Your task to perform on an android device: remove spam from my inbox in the gmail app Image 0: 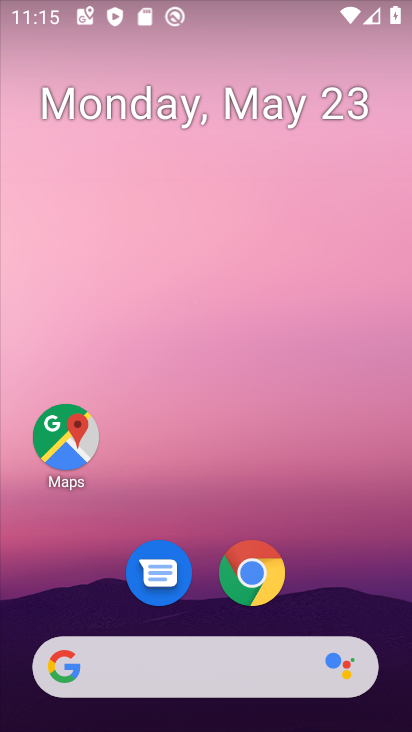
Step 0: drag from (377, 606) to (393, 218)
Your task to perform on an android device: remove spam from my inbox in the gmail app Image 1: 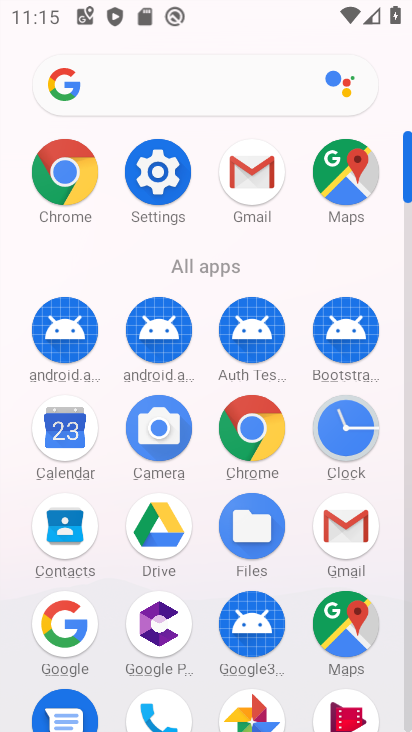
Step 1: click (359, 542)
Your task to perform on an android device: remove spam from my inbox in the gmail app Image 2: 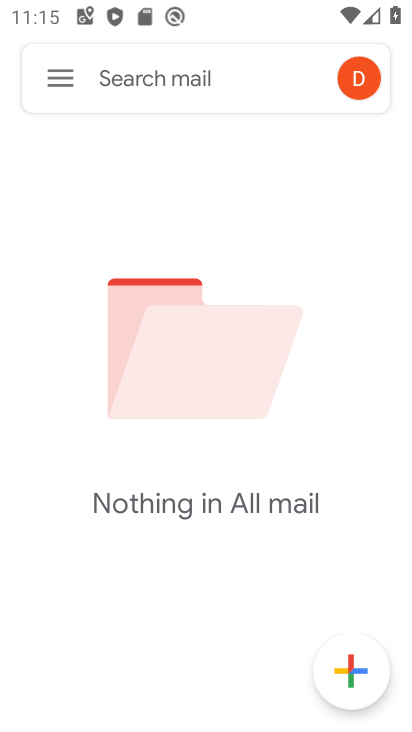
Step 2: click (60, 77)
Your task to perform on an android device: remove spam from my inbox in the gmail app Image 3: 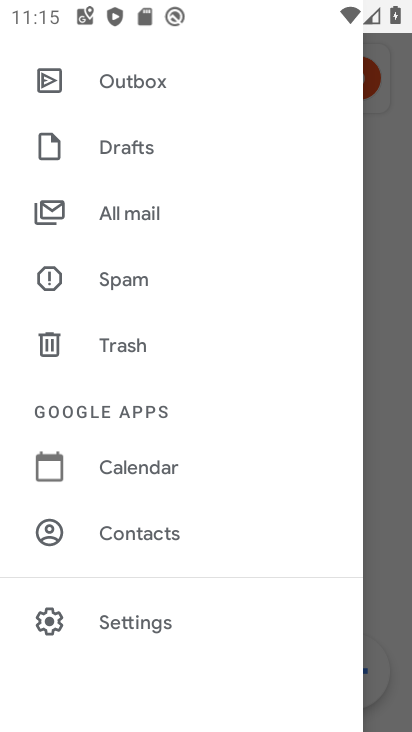
Step 3: drag from (271, 521) to (292, 297)
Your task to perform on an android device: remove spam from my inbox in the gmail app Image 4: 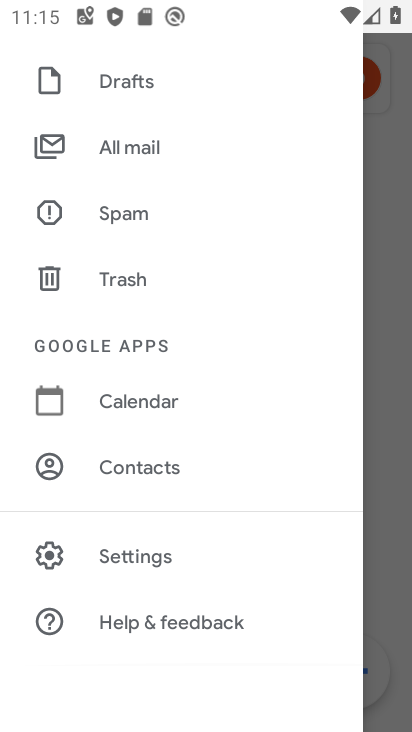
Step 4: drag from (292, 186) to (265, 422)
Your task to perform on an android device: remove spam from my inbox in the gmail app Image 5: 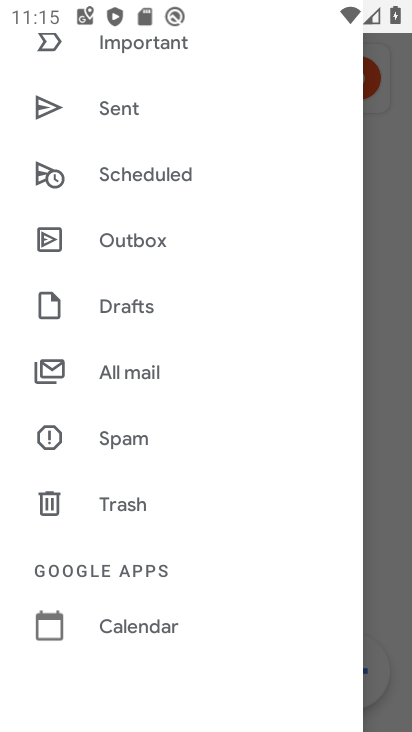
Step 5: drag from (262, 194) to (246, 361)
Your task to perform on an android device: remove spam from my inbox in the gmail app Image 6: 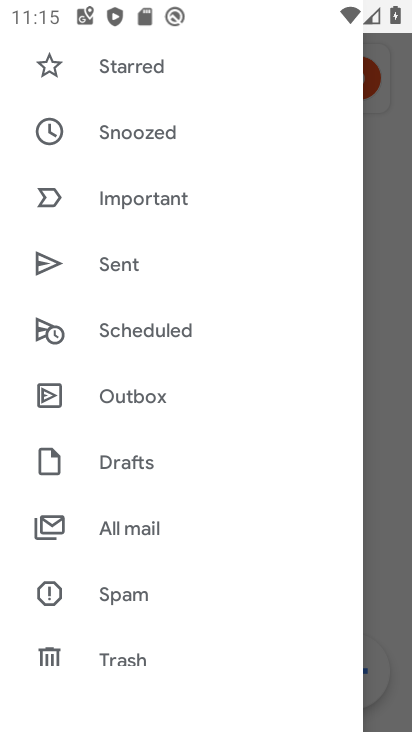
Step 6: drag from (244, 159) to (264, 371)
Your task to perform on an android device: remove spam from my inbox in the gmail app Image 7: 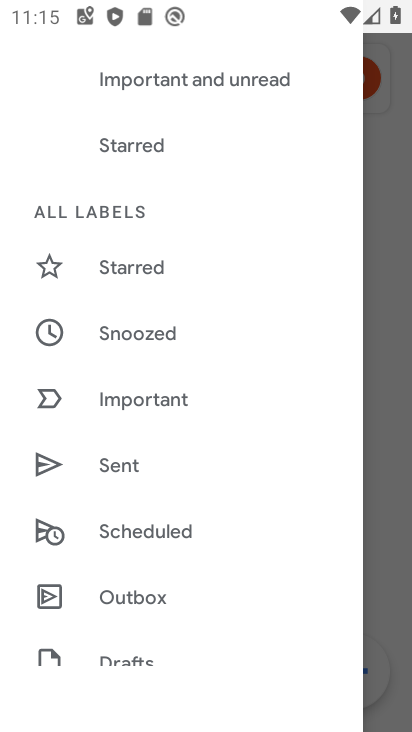
Step 7: drag from (274, 196) to (279, 392)
Your task to perform on an android device: remove spam from my inbox in the gmail app Image 8: 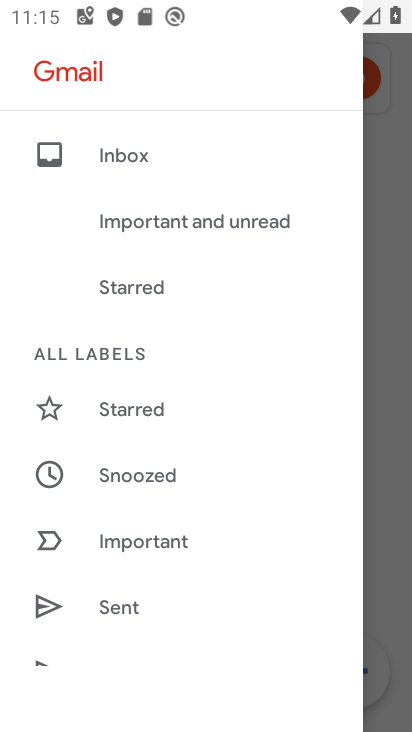
Step 8: drag from (256, 163) to (276, 323)
Your task to perform on an android device: remove spam from my inbox in the gmail app Image 9: 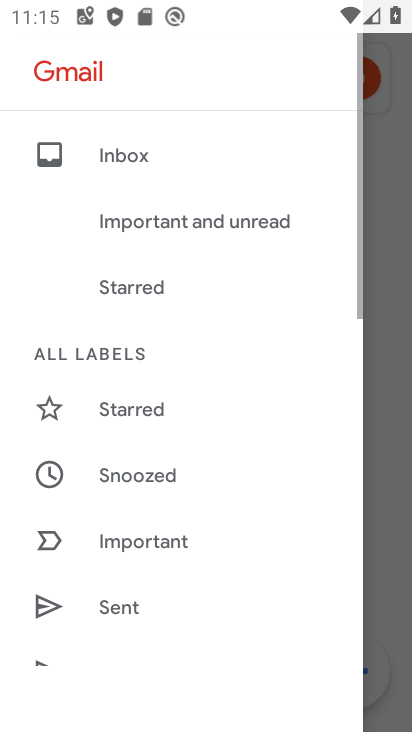
Step 9: drag from (267, 405) to (273, 253)
Your task to perform on an android device: remove spam from my inbox in the gmail app Image 10: 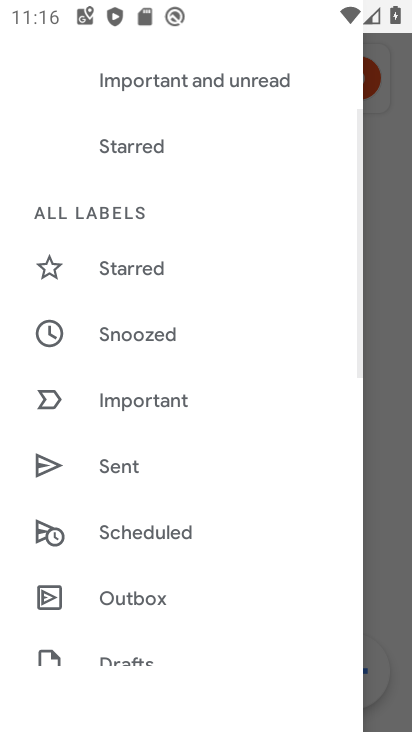
Step 10: drag from (279, 400) to (286, 231)
Your task to perform on an android device: remove spam from my inbox in the gmail app Image 11: 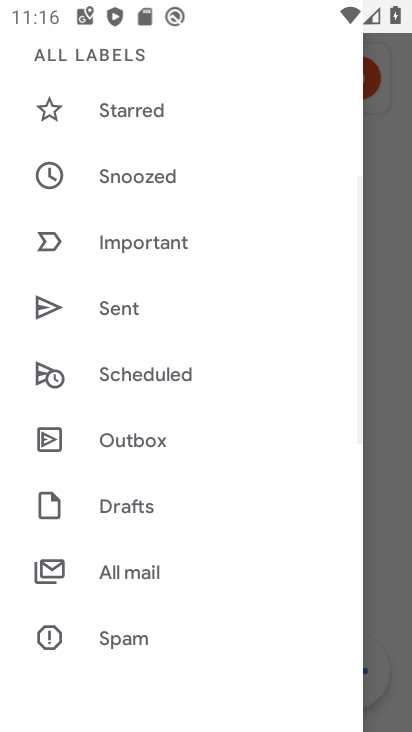
Step 11: drag from (280, 417) to (242, 267)
Your task to perform on an android device: remove spam from my inbox in the gmail app Image 12: 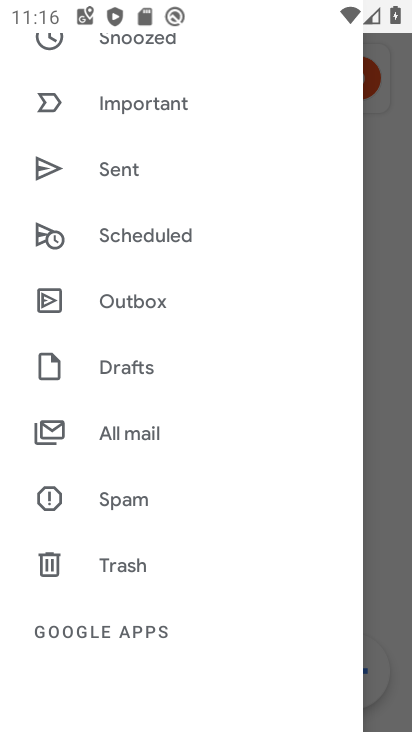
Step 12: drag from (271, 468) to (263, 296)
Your task to perform on an android device: remove spam from my inbox in the gmail app Image 13: 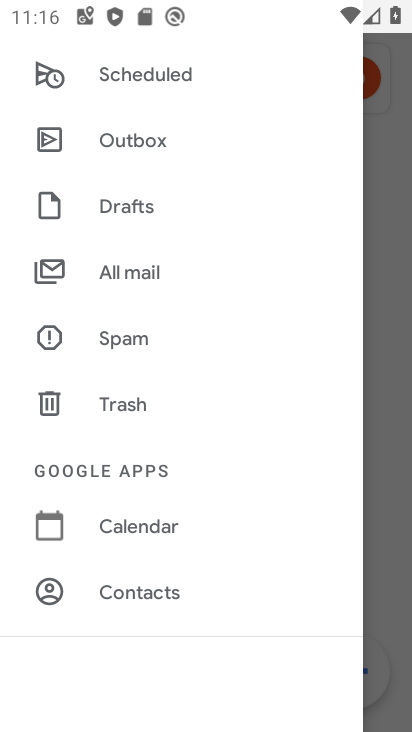
Step 13: click (153, 341)
Your task to perform on an android device: remove spam from my inbox in the gmail app Image 14: 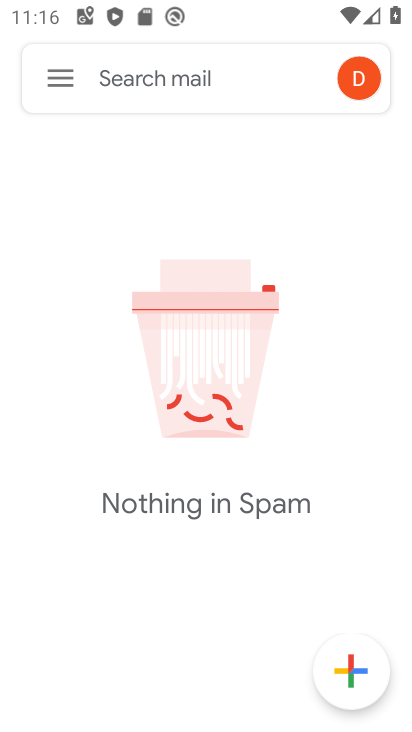
Step 14: task complete